Your task to perform on an android device: make emails show in primary in the gmail app Image 0: 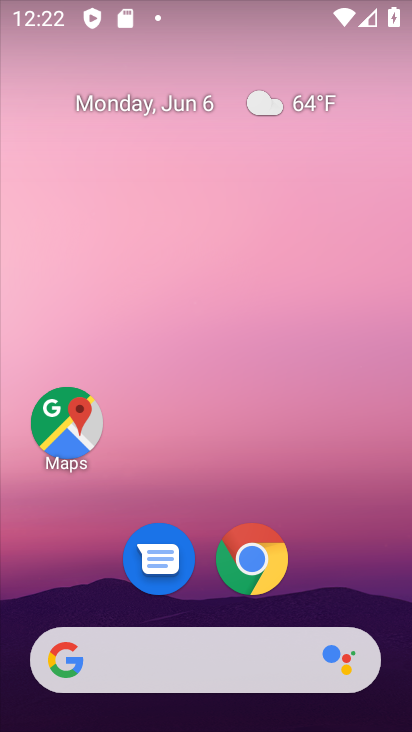
Step 0: drag from (231, 657) to (194, 181)
Your task to perform on an android device: make emails show in primary in the gmail app Image 1: 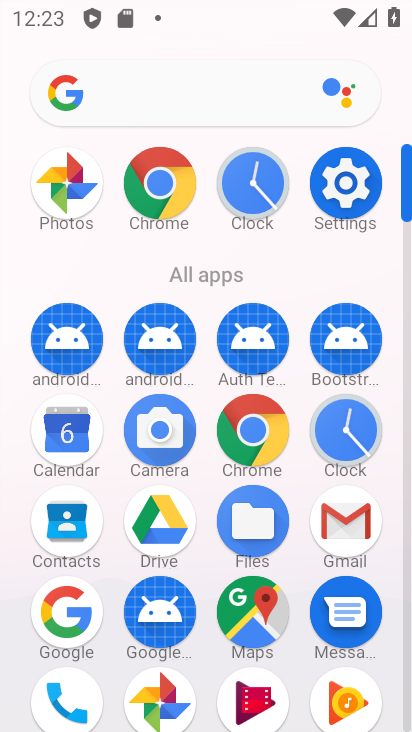
Step 1: click (332, 540)
Your task to perform on an android device: make emails show in primary in the gmail app Image 2: 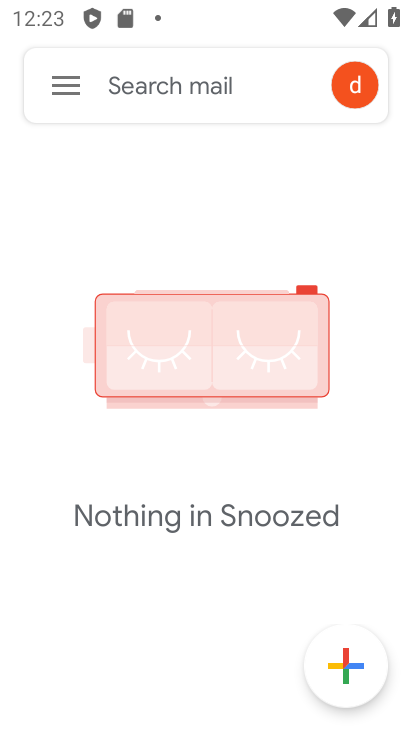
Step 2: click (51, 69)
Your task to perform on an android device: make emails show in primary in the gmail app Image 3: 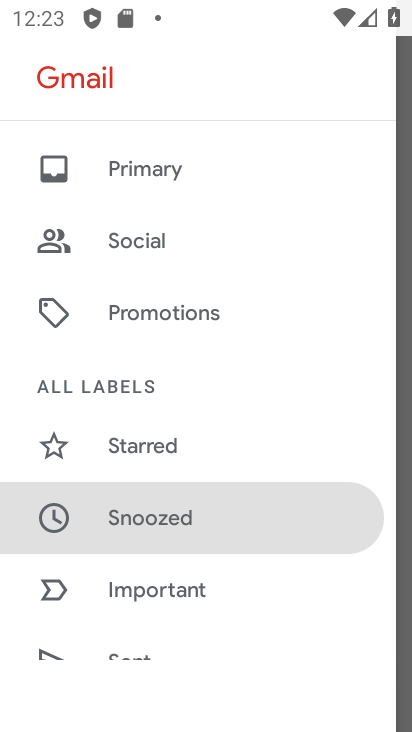
Step 3: drag from (156, 565) to (177, 221)
Your task to perform on an android device: make emails show in primary in the gmail app Image 4: 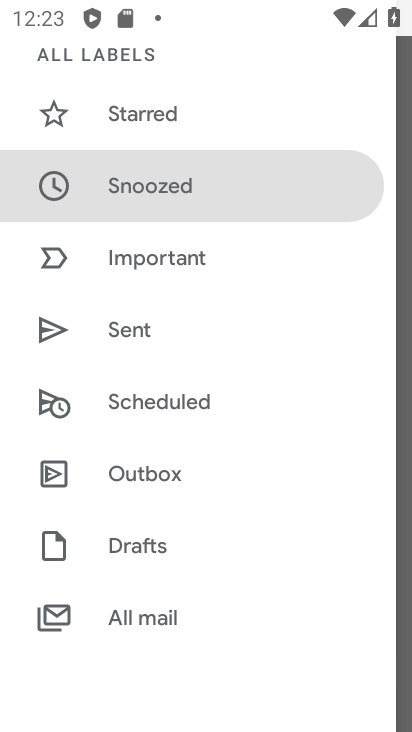
Step 4: drag from (149, 569) to (160, 293)
Your task to perform on an android device: make emails show in primary in the gmail app Image 5: 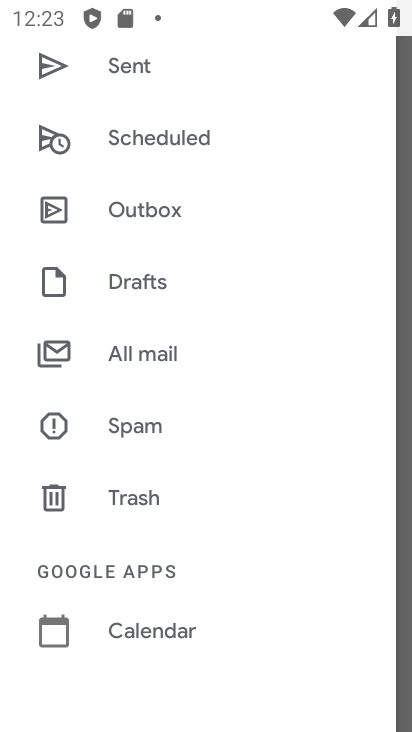
Step 5: drag from (141, 604) to (147, 366)
Your task to perform on an android device: make emails show in primary in the gmail app Image 6: 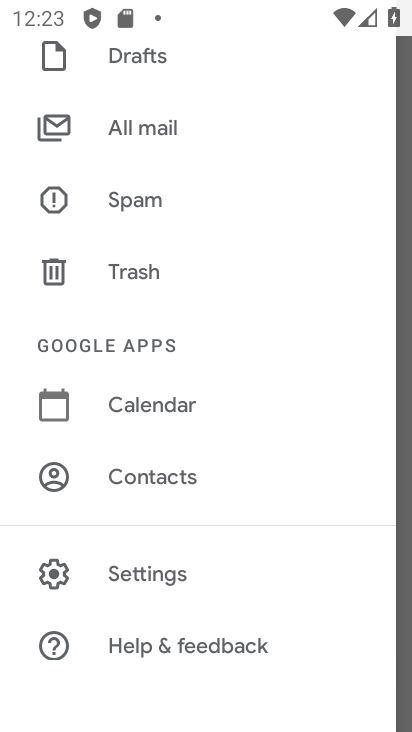
Step 6: click (138, 570)
Your task to perform on an android device: make emails show in primary in the gmail app Image 7: 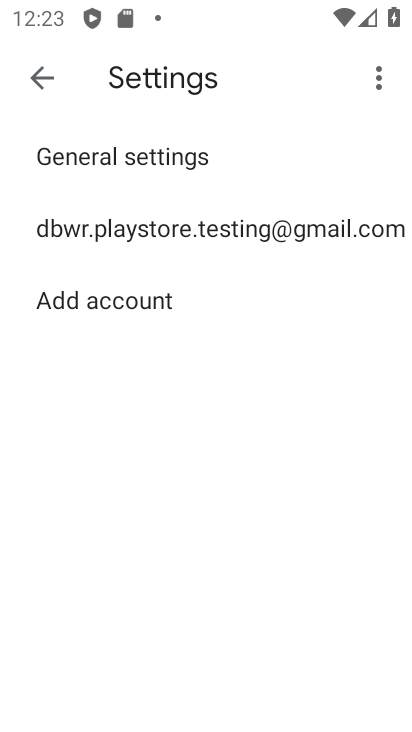
Step 7: click (134, 237)
Your task to perform on an android device: make emails show in primary in the gmail app Image 8: 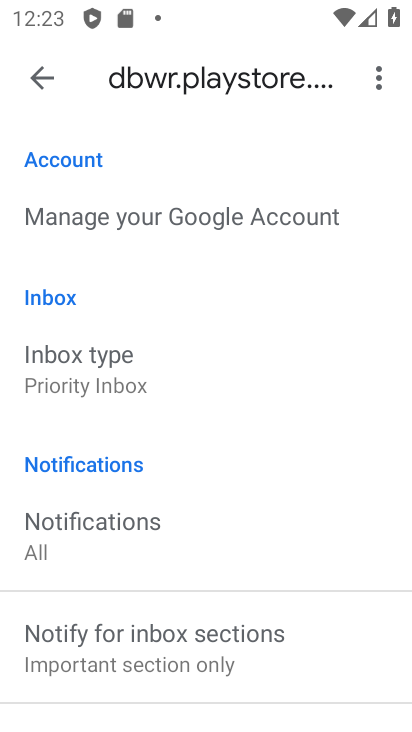
Step 8: click (101, 373)
Your task to perform on an android device: make emails show in primary in the gmail app Image 9: 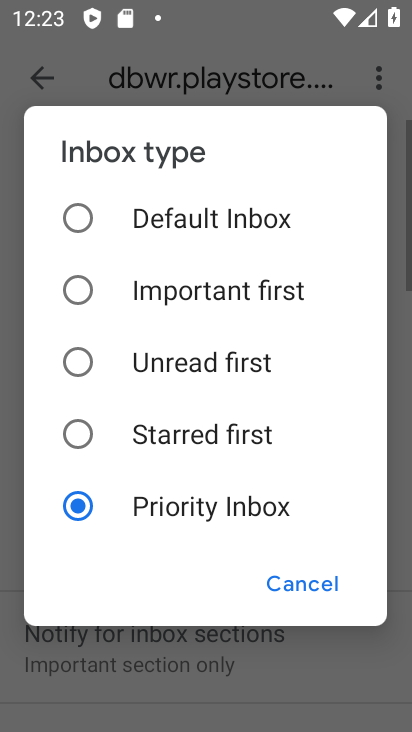
Step 9: click (117, 233)
Your task to perform on an android device: make emails show in primary in the gmail app Image 10: 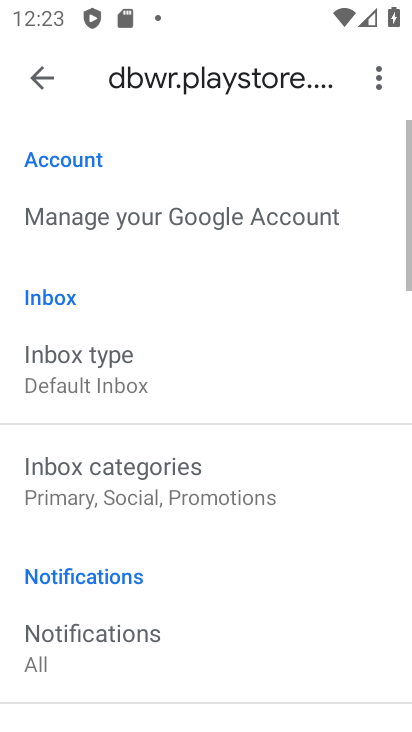
Step 10: click (123, 481)
Your task to perform on an android device: make emails show in primary in the gmail app Image 11: 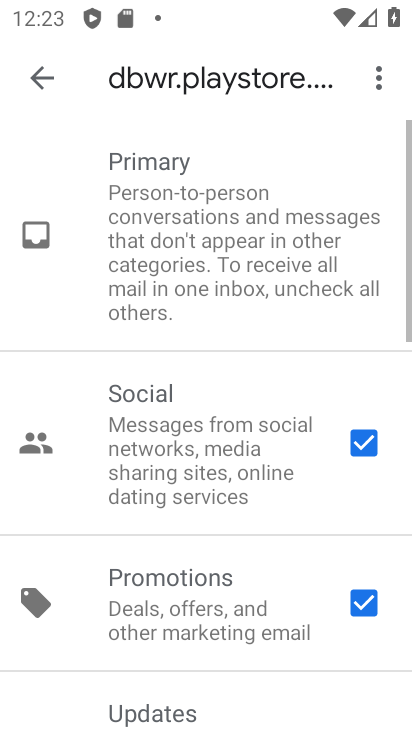
Step 11: click (354, 445)
Your task to perform on an android device: make emails show in primary in the gmail app Image 12: 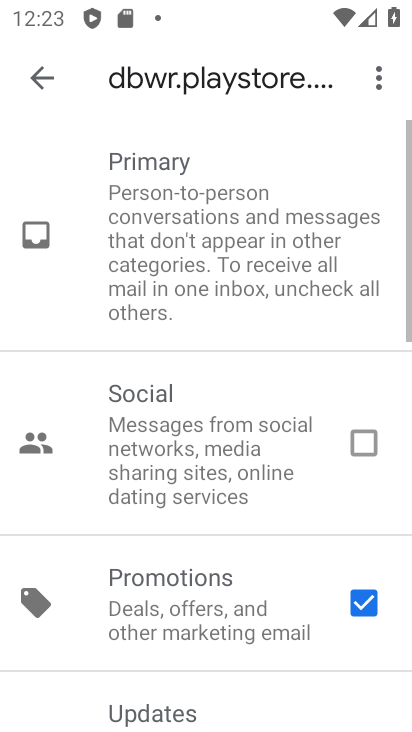
Step 12: click (340, 604)
Your task to perform on an android device: make emails show in primary in the gmail app Image 13: 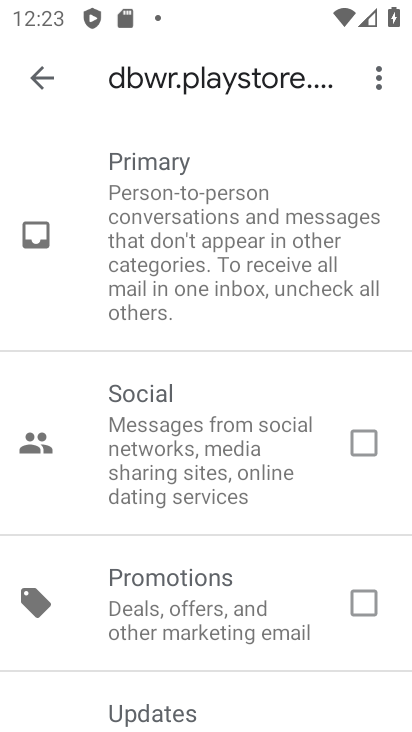
Step 13: task complete